Your task to perform on an android device: Go to eBay Image 0: 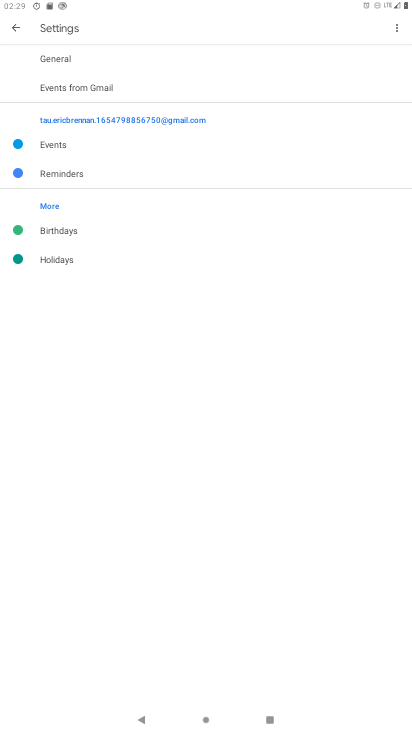
Step 0: press home button
Your task to perform on an android device: Go to eBay Image 1: 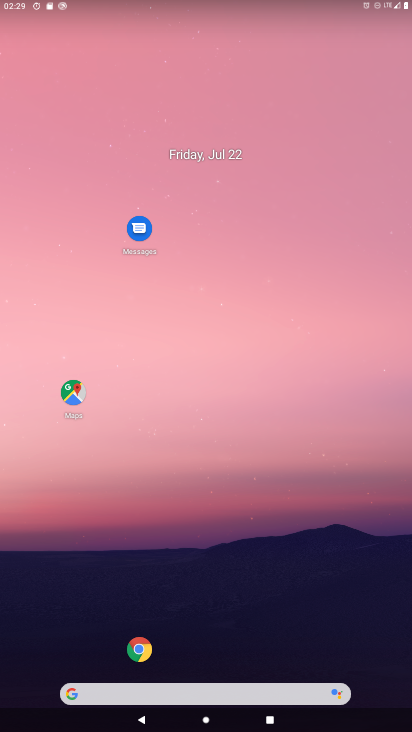
Step 1: drag from (60, 688) to (268, 235)
Your task to perform on an android device: Go to eBay Image 2: 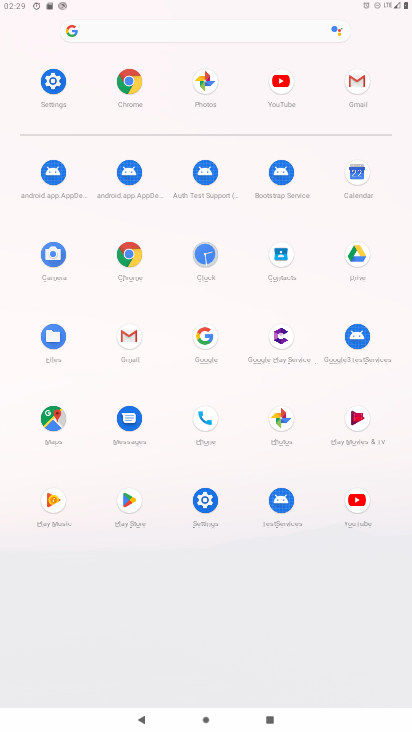
Step 2: click (123, 22)
Your task to perform on an android device: Go to eBay Image 3: 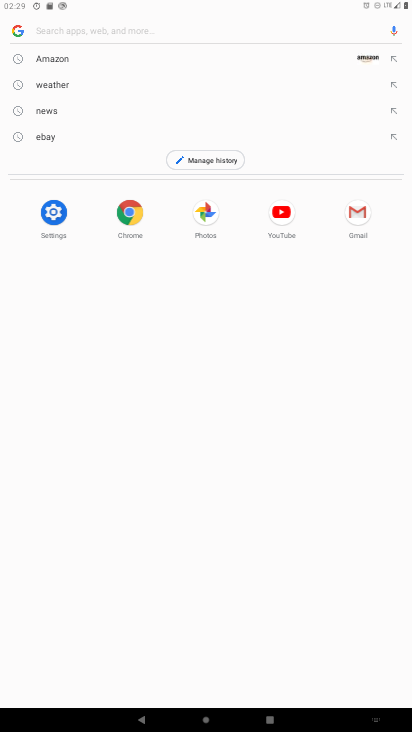
Step 3: click (36, 134)
Your task to perform on an android device: Go to eBay Image 4: 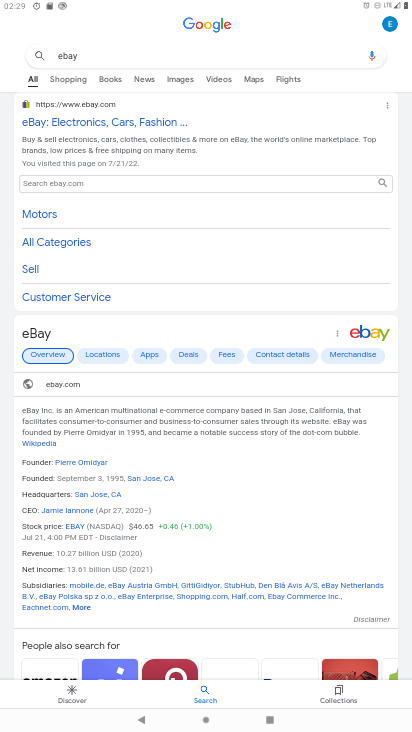
Step 4: task complete